Your task to perform on an android device: Go to Wikipedia Image 0: 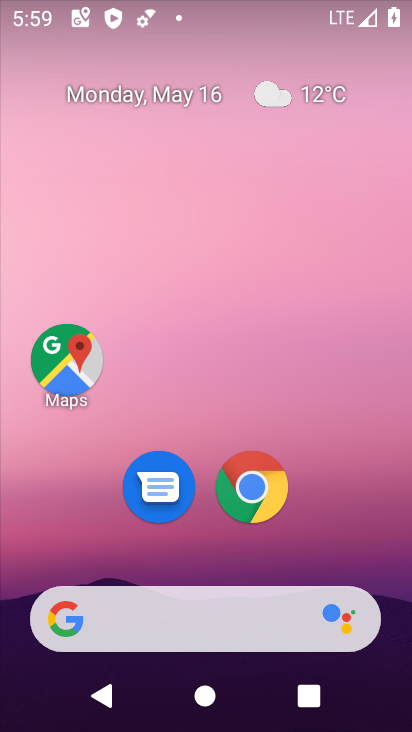
Step 0: click (264, 486)
Your task to perform on an android device: Go to Wikipedia Image 1: 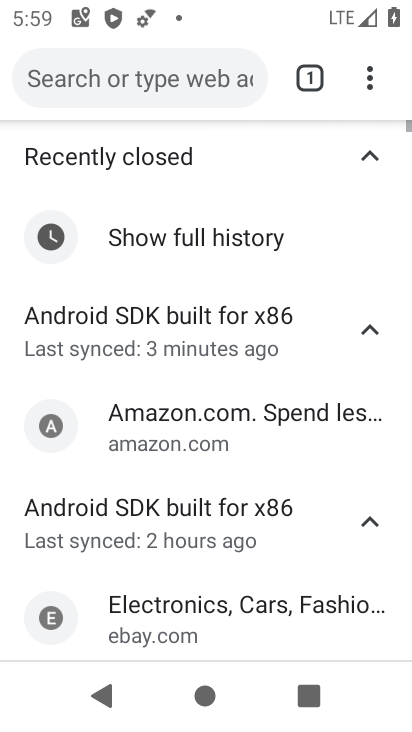
Step 1: click (154, 90)
Your task to perform on an android device: Go to Wikipedia Image 2: 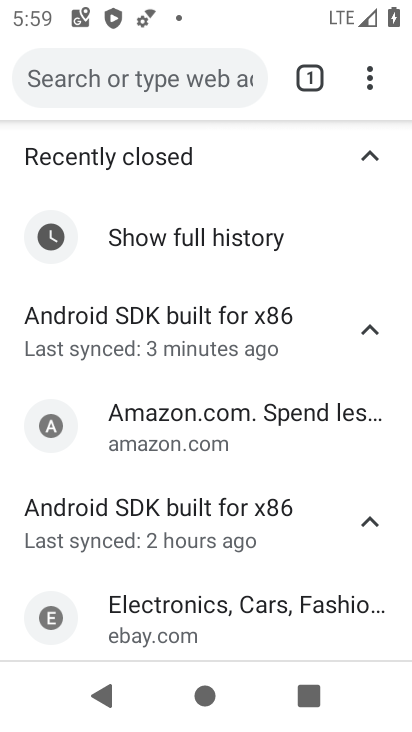
Step 2: click (165, 69)
Your task to perform on an android device: Go to Wikipedia Image 3: 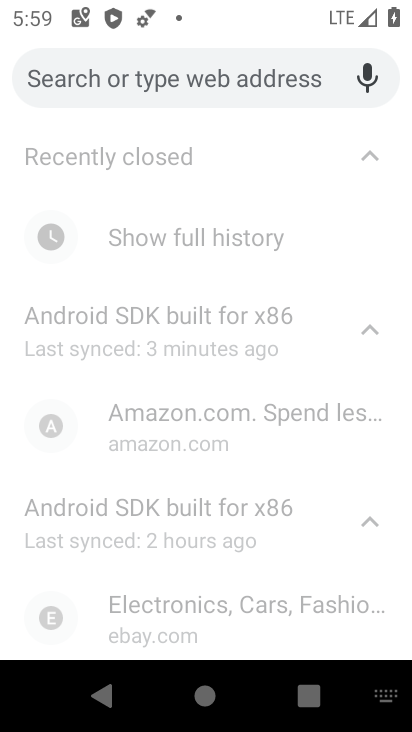
Step 3: type "wikipedia"
Your task to perform on an android device: Go to Wikipedia Image 4: 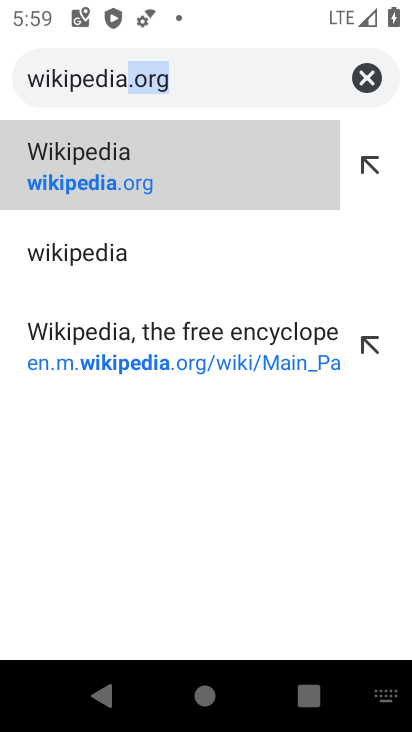
Step 4: click (79, 179)
Your task to perform on an android device: Go to Wikipedia Image 5: 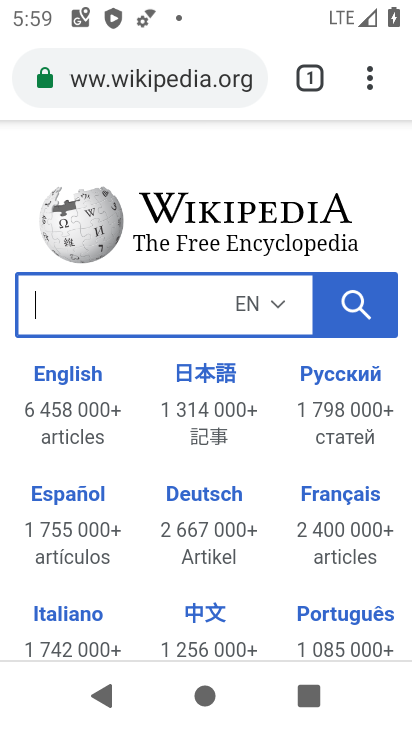
Step 5: task complete